Your task to perform on an android device: toggle improve location accuracy Image 0: 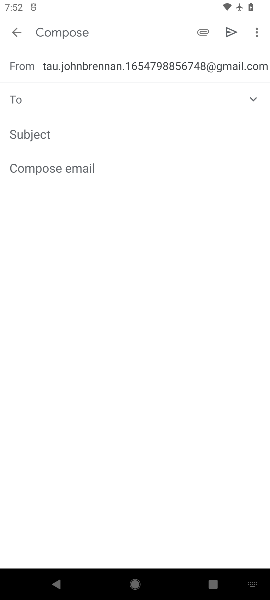
Step 0: press home button
Your task to perform on an android device: toggle improve location accuracy Image 1: 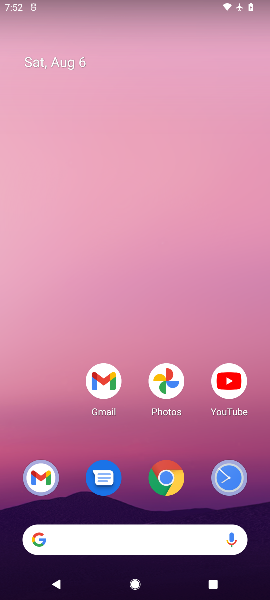
Step 1: drag from (57, 419) to (54, 23)
Your task to perform on an android device: toggle improve location accuracy Image 2: 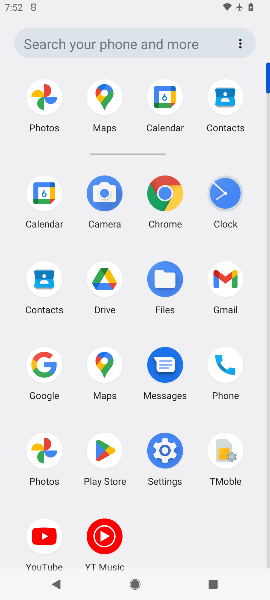
Step 2: click (154, 450)
Your task to perform on an android device: toggle improve location accuracy Image 3: 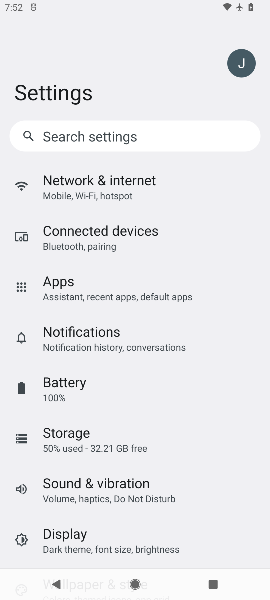
Step 3: drag from (117, 403) to (103, 122)
Your task to perform on an android device: toggle improve location accuracy Image 4: 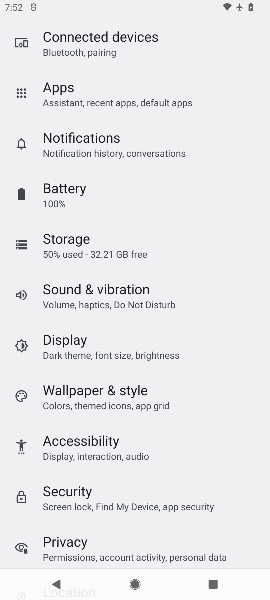
Step 4: drag from (42, 419) to (50, 155)
Your task to perform on an android device: toggle improve location accuracy Image 5: 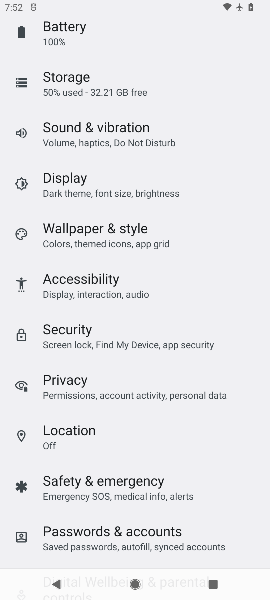
Step 5: drag from (128, 103) to (124, 191)
Your task to perform on an android device: toggle improve location accuracy Image 6: 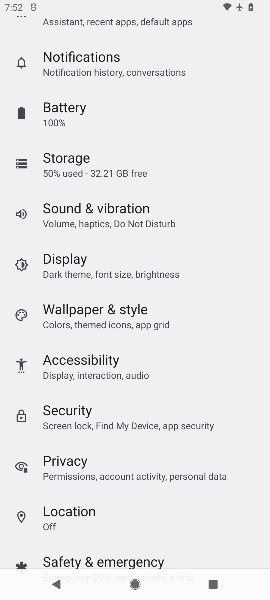
Step 6: click (75, 520)
Your task to perform on an android device: toggle improve location accuracy Image 7: 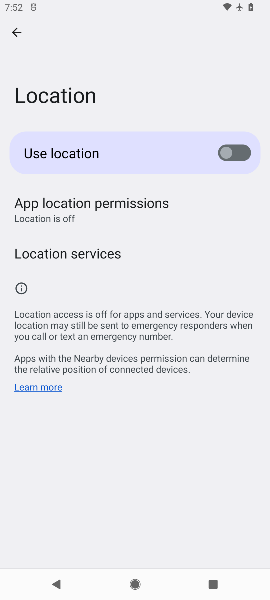
Step 7: click (48, 254)
Your task to perform on an android device: toggle improve location accuracy Image 8: 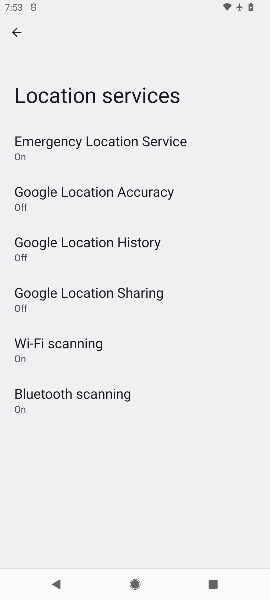
Step 8: click (46, 203)
Your task to perform on an android device: toggle improve location accuracy Image 9: 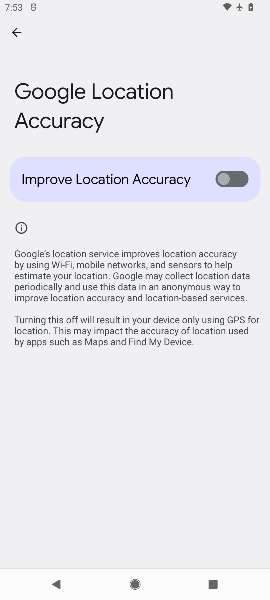
Step 9: click (236, 183)
Your task to perform on an android device: toggle improve location accuracy Image 10: 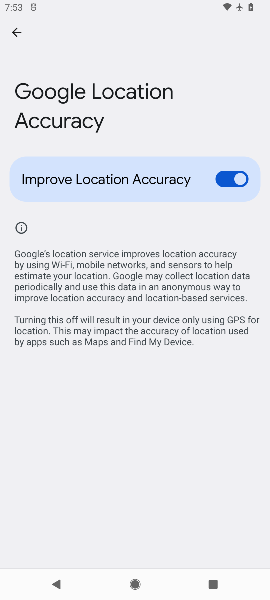
Step 10: task complete